Your task to perform on an android device: star an email in the gmail app Image 0: 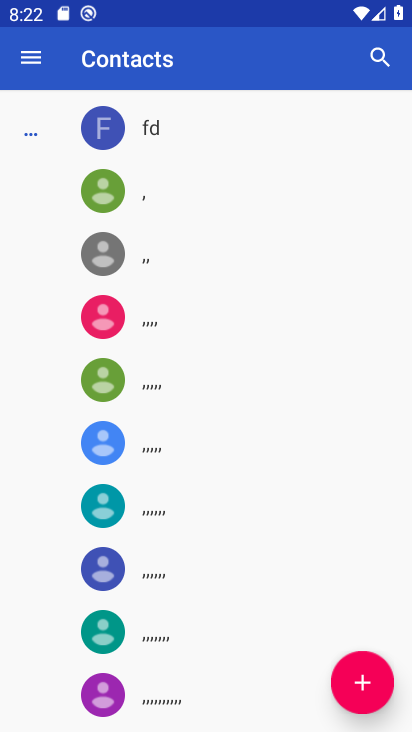
Step 0: press home button
Your task to perform on an android device: star an email in the gmail app Image 1: 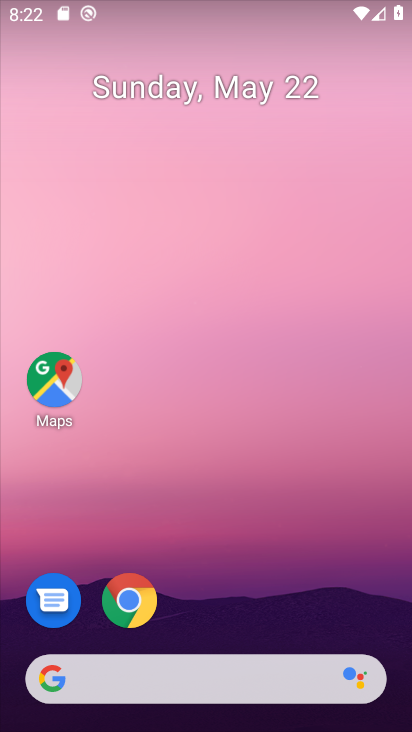
Step 1: drag from (170, 652) to (177, 390)
Your task to perform on an android device: star an email in the gmail app Image 2: 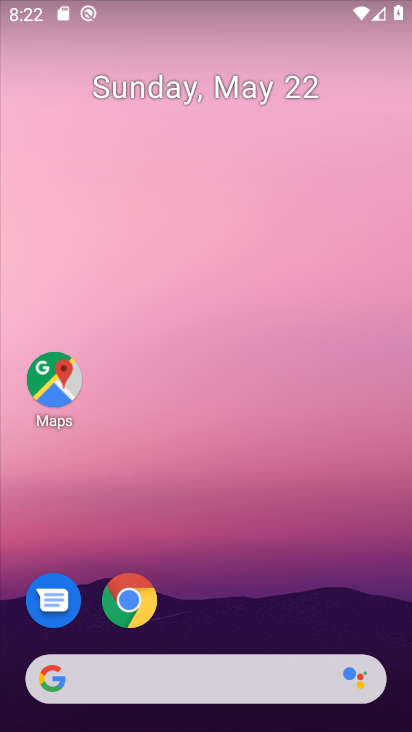
Step 2: drag from (229, 539) to (330, 206)
Your task to perform on an android device: star an email in the gmail app Image 3: 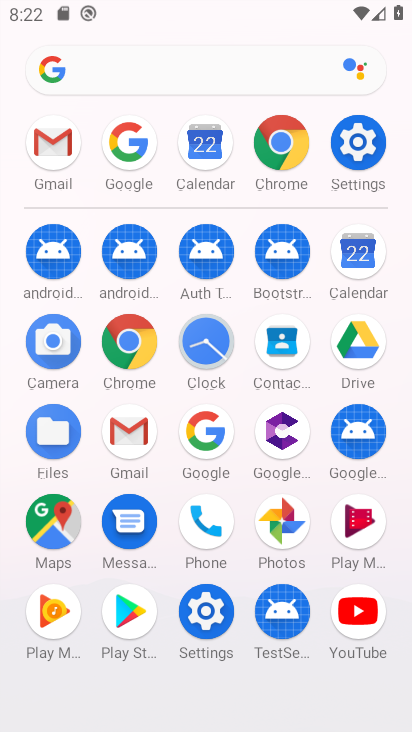
Step 3: click (40, 149)
Your task to perform on an android device: star an email in the gmail app Image 4: 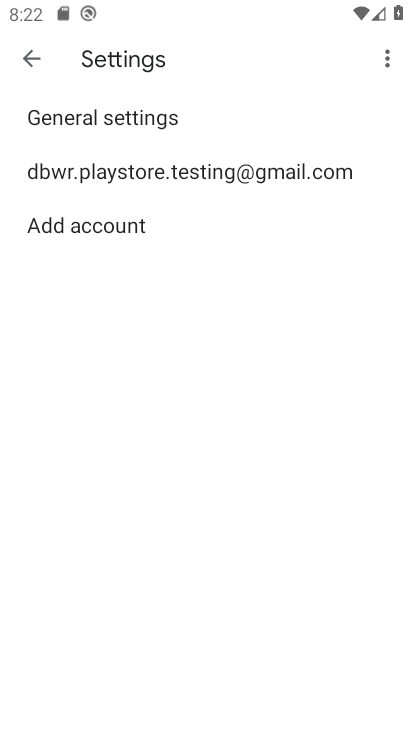
Step 4: click (27, 53)
Your task to perform on an android device: star an email in the gmail app Image 5: 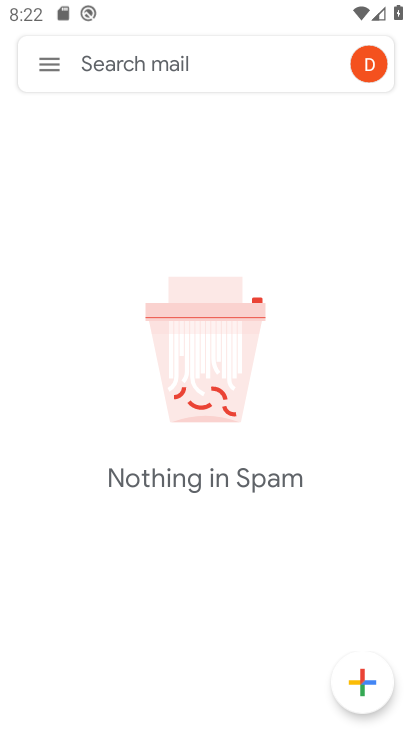
Step 5: click (52, 67)
Your task to perform on an android device: star an email in the gmail app Image 6: 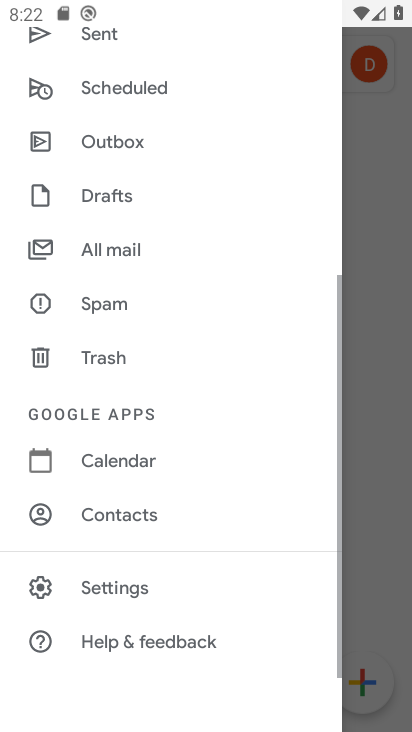
Step 6: drag from (186, 99) to (263, 505)
Your task to perform on an android device: star an email in the gmail app Image 7: 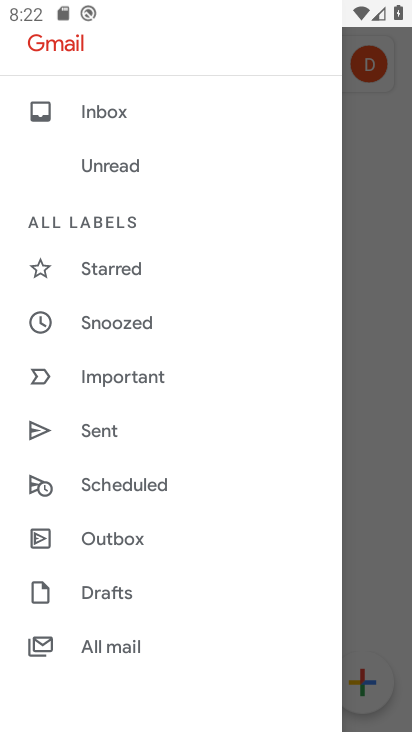
Step 7: click (132, 117)
Your task to perform on an android device: star an email in the gmail app Image 8: 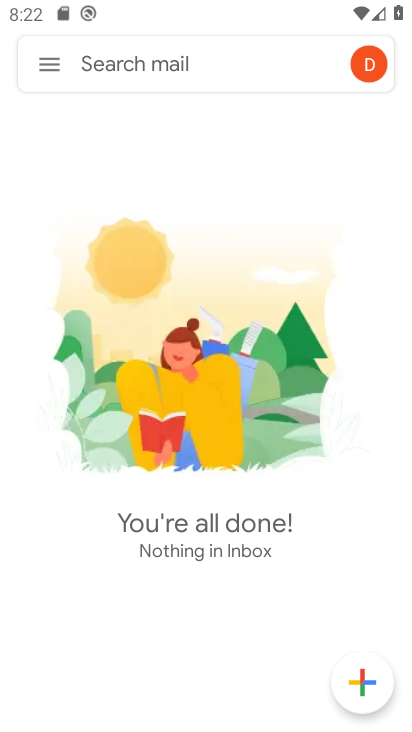
Step 8: task complete